Your task to perform on an android device: Search for "logitech g pro" on costco, select the first entry, and add it to the cart. Image 0: 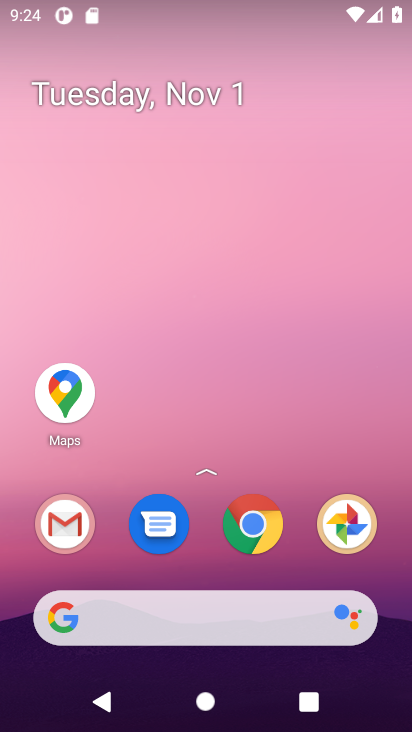
Step 0: click (106, 616)
Your task to perform on an android device: Search for "logitech g pro" on costco, select the first entry, and add it to the cart. Image 1: 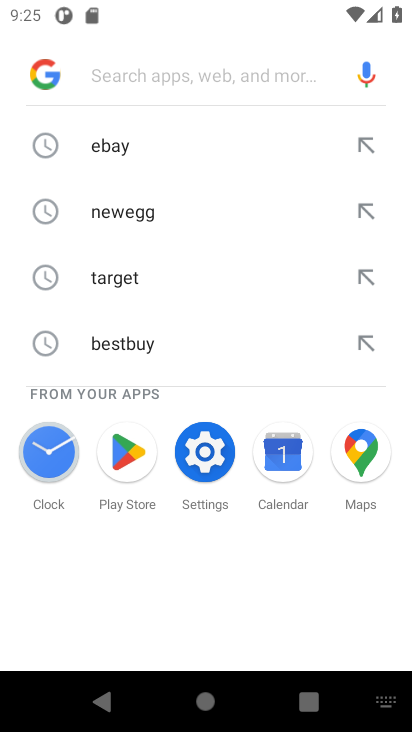
Step 1: press enter
Your task to perform on an android device: Search for "logitech g pro" on costco, select the first entry, and add it to the cart. Image 2: 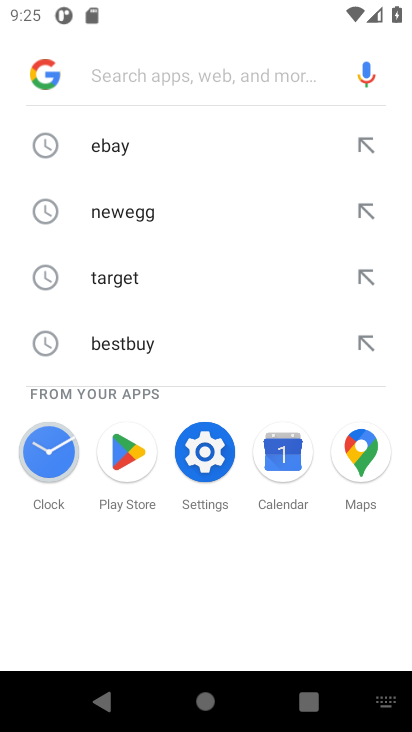
Step 2: type "costco"
Your task to perform on an android device: Search for "logitech g pro" on costco, select the first entry, and add it to the cart. Image 3: 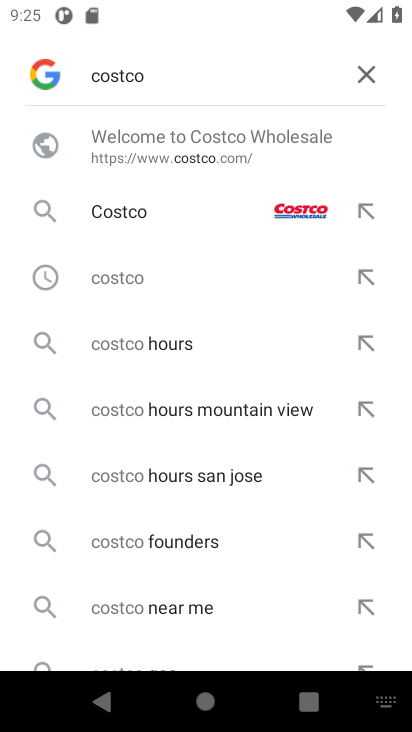
Step 3: press enter
Your task to perform on an android device: Search for "logitech g pro" on costco, select the first entry, and add it to the cart. Image 4: 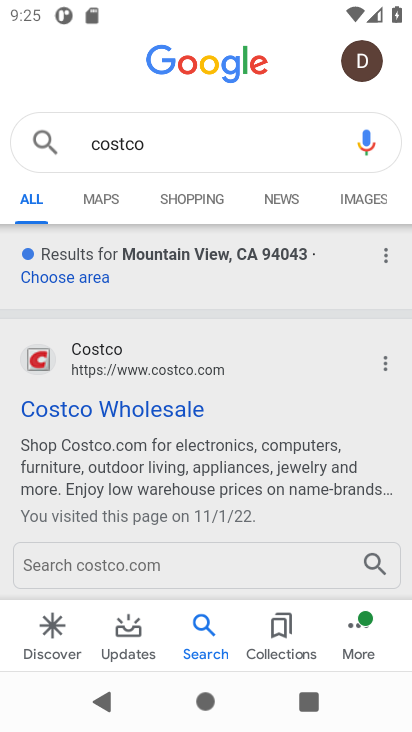
Step 4: click (134, 410)
Your task to perform on an android device: Search for "logitech g pro" on costco, select the first entry, and add it to the cart. Image 5: 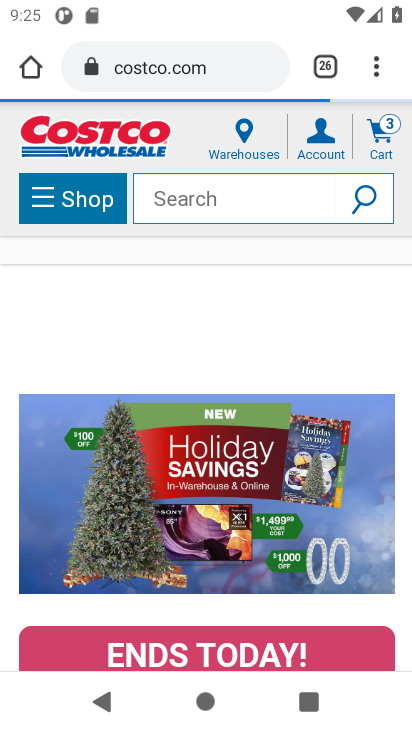
Step 5: click (180, 197)
Your task to perform on an android device: Search for "logitech g pro" on costco, select the first entry, and add it to the cart. Image 6: 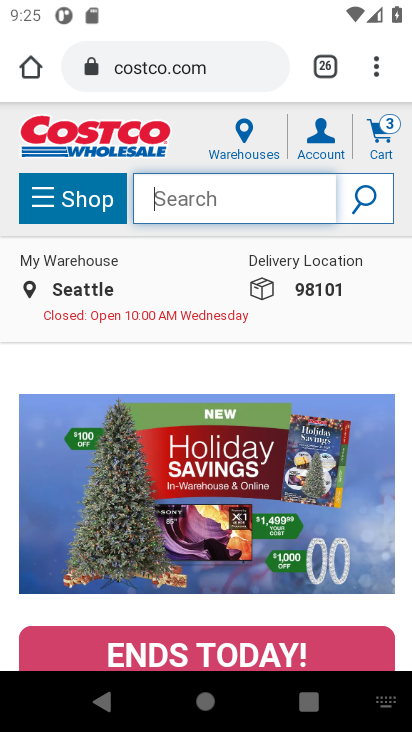
Step 6: type "logitech g pro"
Your task to perform on an android device: Search for "logitech g pro" on costco, select the first entry, and add it to the cart. Image 7: 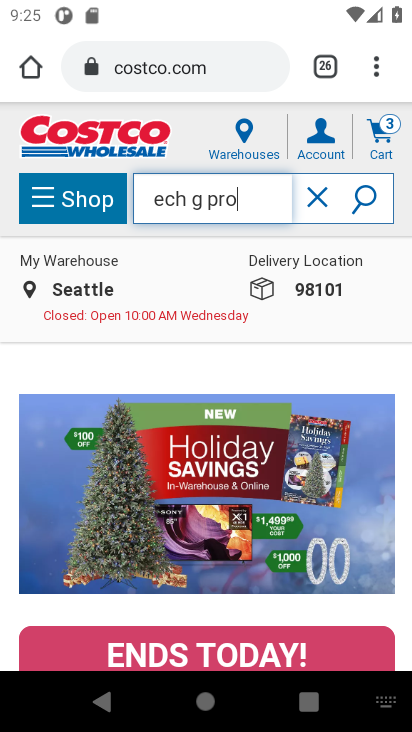
Step 7: press enter
Your task to perform on an android device: Search for "logitech g pro" on costco, select the first entry, and add it to the cart. Image 8: 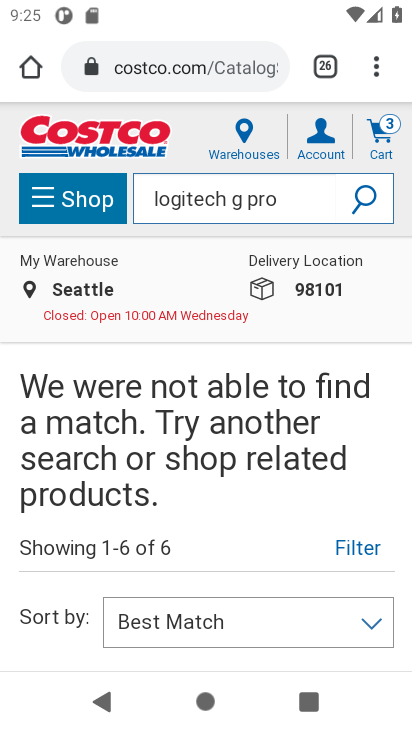
Step 8: task complete